Your task to perform on an android device: Open Google Image 0: 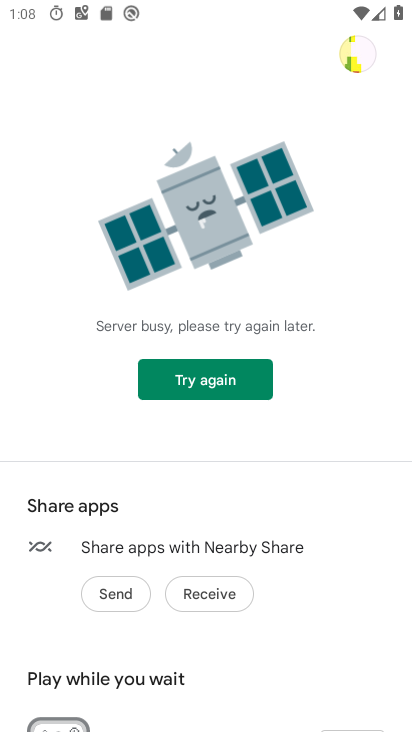
Step 0: press home button
Your task to perform on an android device: Open Google Image 1: 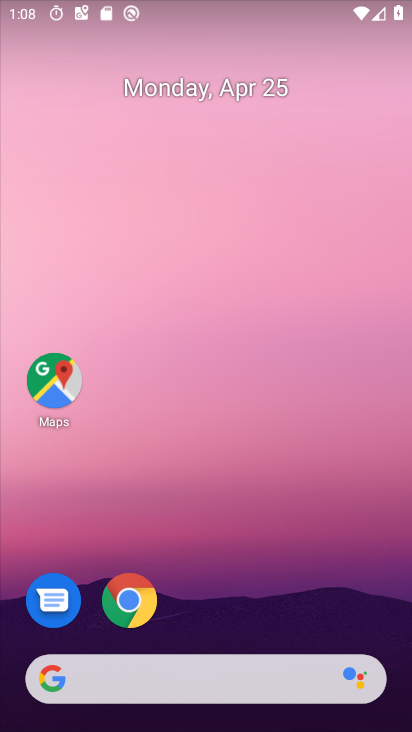
Step 1: click (130, 605)
Your task to perform on an android device: Open Google Image 2: 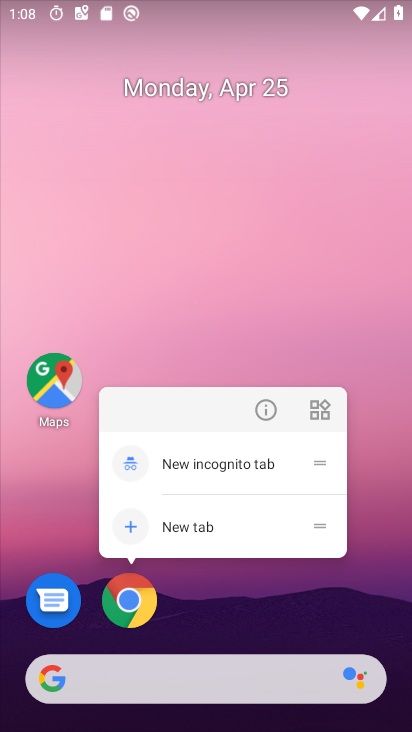
Step 2: drag from (183, 667) to (310, 94)
Your task to perform on an android device: Open Google Image 3: 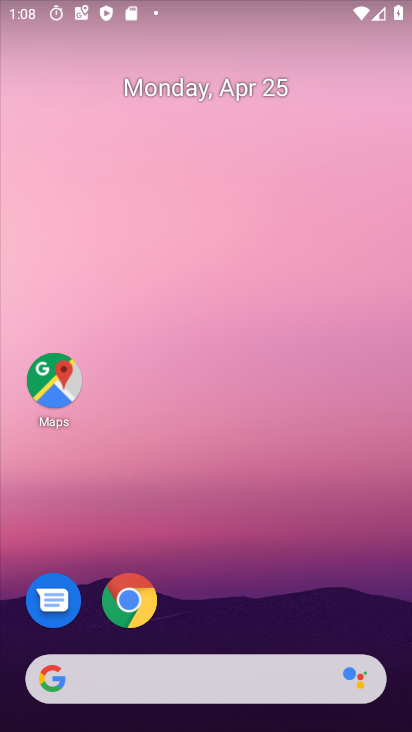
Step 3: drag from (183, 686) to (298, 107)
Your task to perform on an android device: Open Google Image 4: 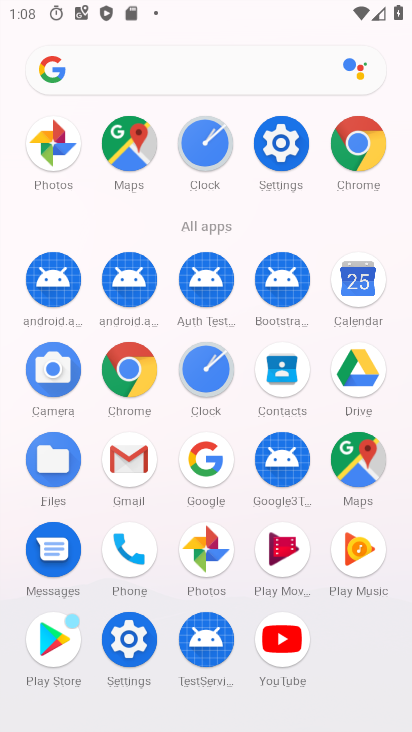
Step 4: click (204, 460)
Your task to perform on an android device: Open Google Image 5: 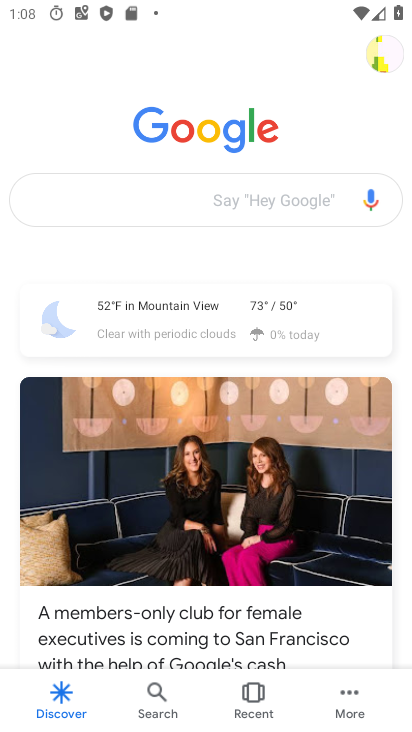
Step 5: task complete